Your task to perform on an android device: turn off smart reply in the gmail app Image 0: 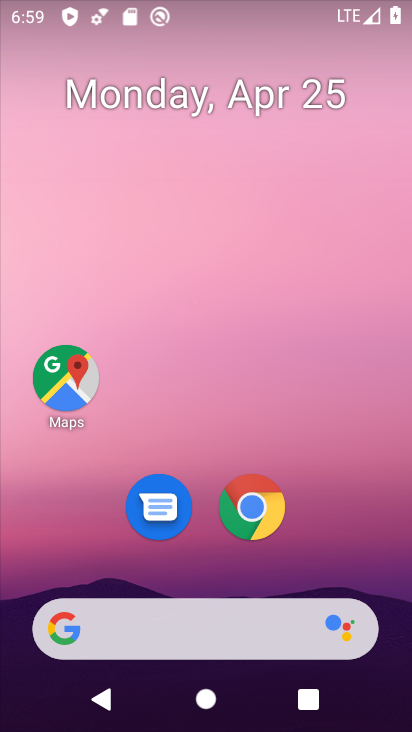
Step 0: drag from (367, 545) to (308, 84)
Your task to perform on an android device: turn off smart reply in the gmail app Image 1: 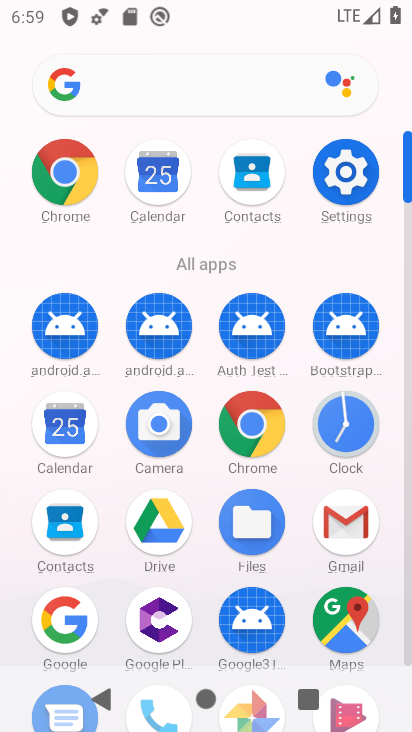
Step 1: click (345, 528)
Your task to perform on an android device: turn off smart reply in the gmail app Image 2: 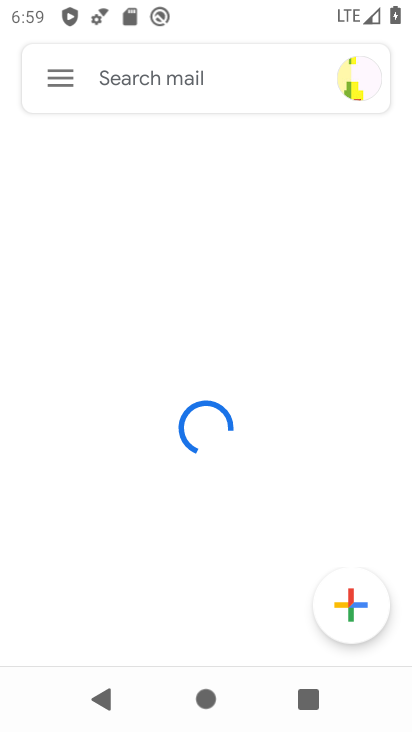
Step 2: click (58, 81)
Your task to perform on an android device: turn off smart reply in the gmail app Image 3: 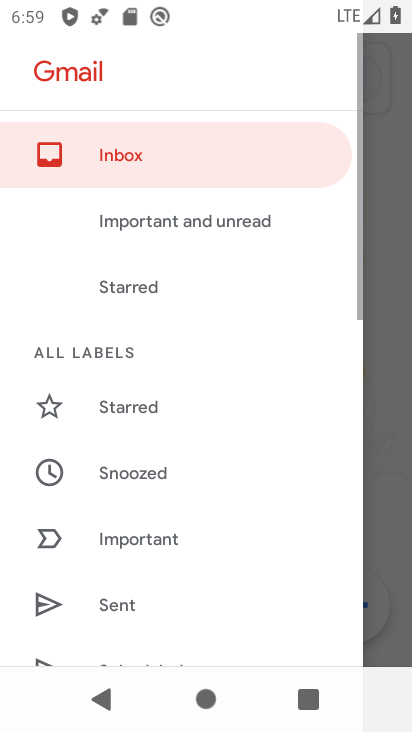
Step 3: drag from (133, 619) to (173, 126)
Your task to perform on an android device: turn off smart reply in the gmail app Image 4: 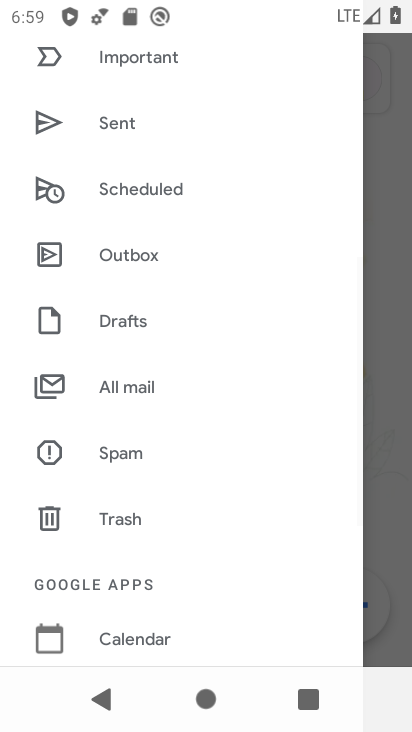
Step 4: drag from (185, 568) to (220, 182)
Your task to perform on an android device: turn off smart reply in the gmail app Image 5: 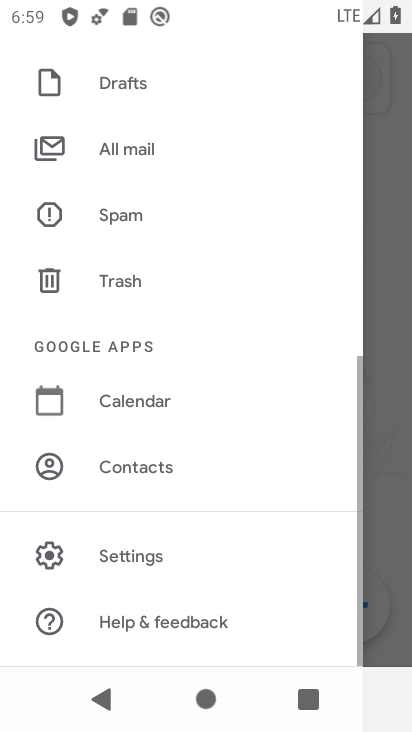
Step 5: click (177, 549)
Your task to perform on an android device: turn off smart reply in the gmail app Image 6: 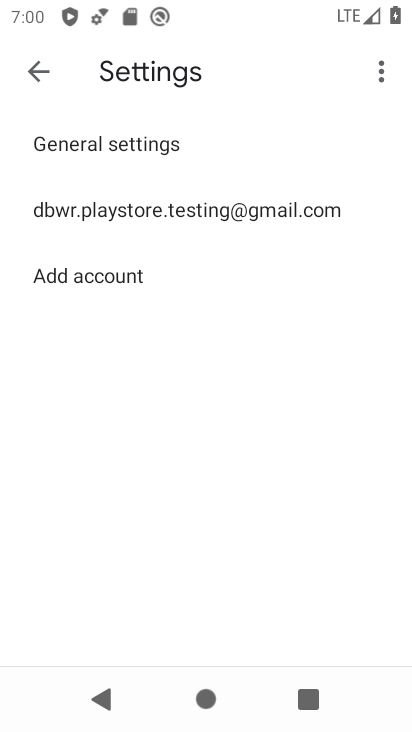
Step 6: click (77, 215)
Your task to perform on an android device: turn off smart reply in the gmail app Image 7: 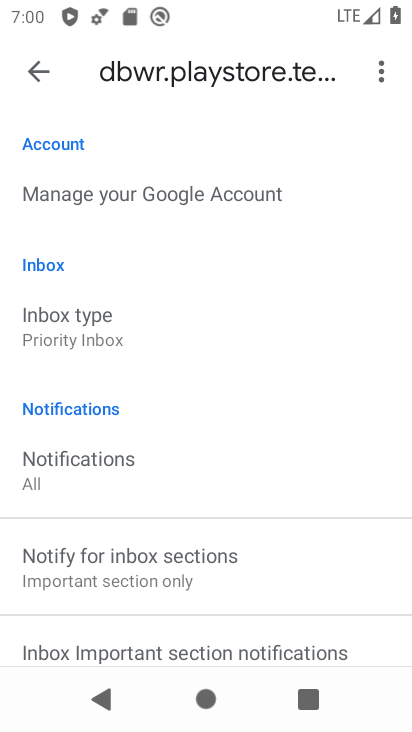
Step 7: drag from (155, 523) to (158, 282)
Your task to perform on an android device: turn off smart reply in the gmail app Image 8: 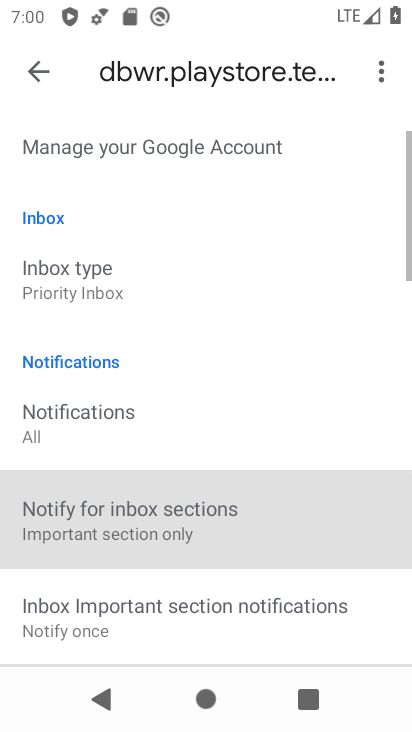
Step 8: drag from (170, 587) to (170, 371)
Your task to perform on an android device: turn off smart reply in the gmail app Image 9: 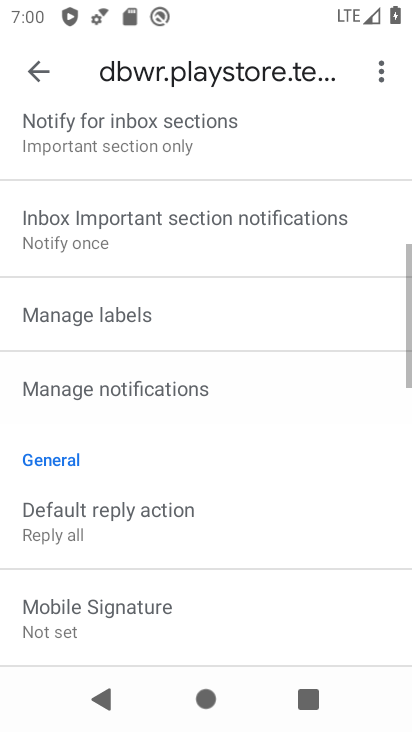
Step 9: drag from (233, 696) to (221, 352)
Your task to perform on an android device: turn off smart reply in the gmail app Image 10: 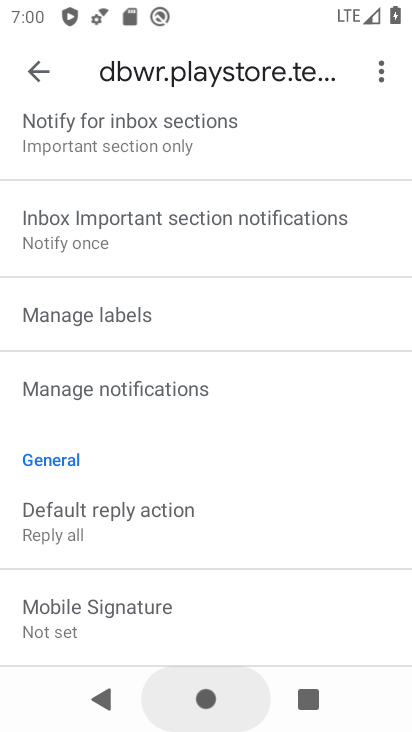
Step 10: drag from (254, 540) to (242, 276)
Your task to perform on an android device: turn off smart reply in the gmail app Image 11: 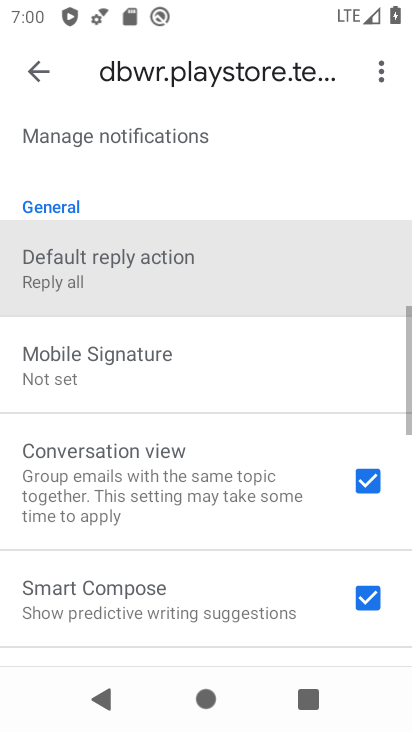
Step 11: drag from (247, 537) to (235, 326)
Your task to perform on an android device: turn off smart reply in the gmail app Image 12: 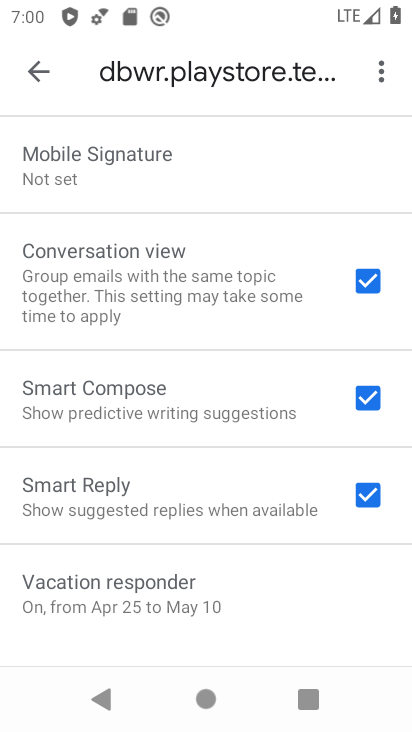
Step 12: click (198, 502)
Your task to perform on an android device: turn off smart reply in the gmail app Image 13: 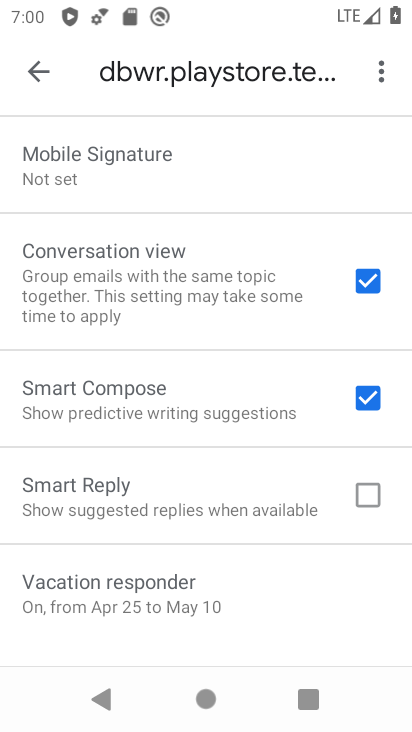
Step 13: task complete